Your task to perform on an android device: open app "Pluto TV - Live TV and Movies" (install if not already installed) Image 0: 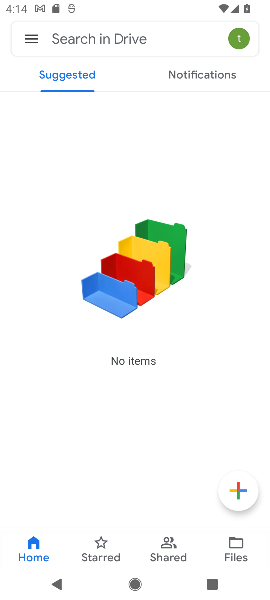
Step 0: press home button
Your task to perform on an android device: open app "Pluto TV - Live TV and Movies" (install if not already installed) Image 1: 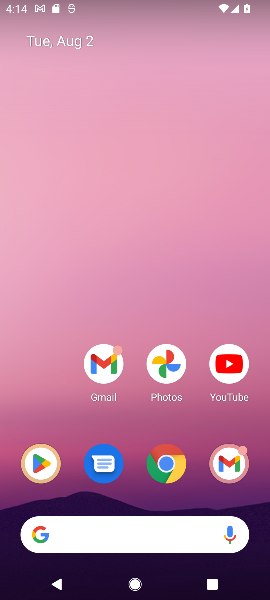
Step 1: click (35, 461)
Your task to perform on an android device: open app "Pluto TV - Live TV and Movies" (install if not already installed) Image 2: 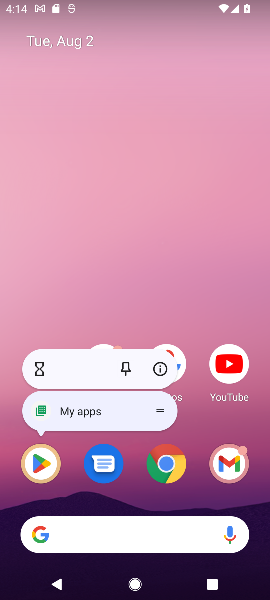
Step 2: click (35, 461)
Your task to perform on an android device: open app "Pluto TV - Live TV and Movies" (install if not already installed) Image 3: 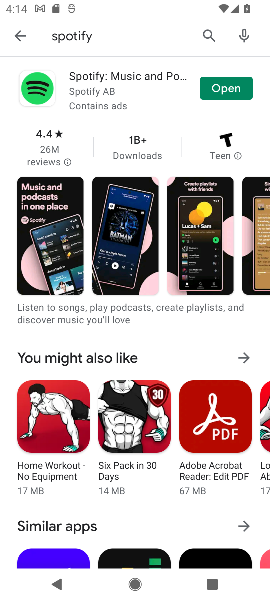
Step 3: click (207, 32)
Your task to perform on an android device: open app "Pluto TV - Live TV and Movies" (install if not already installed) Image 4: 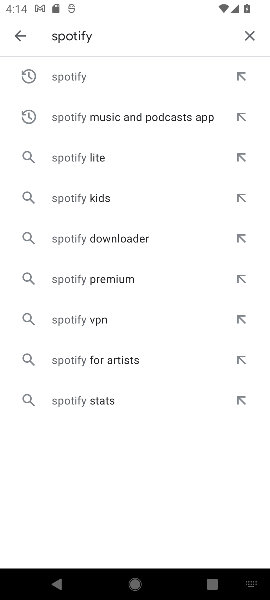
Step 4: click (247, 31)
Your task to perform on an android device: open app "Pluto TV - Live TV and Movies" (install if not already installed) Image 5: 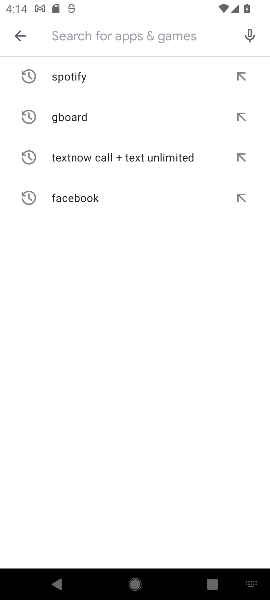
Step 5: type "Pluto TV - Live TV and Movies"
Your task to perform on an android device: open app "Pluto TV - Live TV and Movies" (install if not already installed) Image 6: 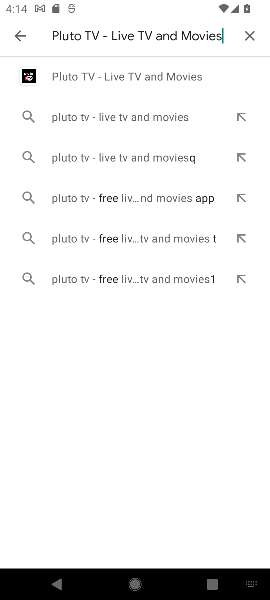
Step 6: click (126, 79)
Your task to perform on an android device: open app "Pluto TV - Live TV and Movies" (install if not already installed) Image 7: 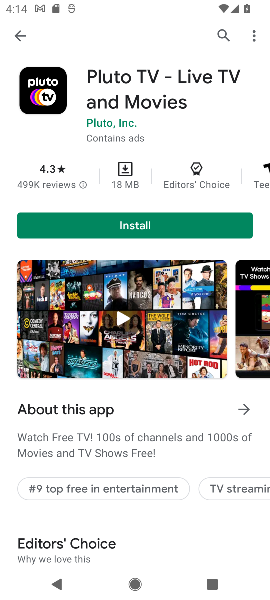
Step 7: click (158, 222)
Your task to perform on an android device: open app "Pluto TV - Live TV and Movies" (install if not already installed) Image 8: 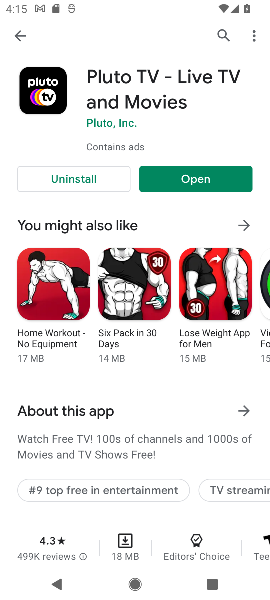
Step 8: click (182, 179)
Your task to perform on an android device: open app "Pluto TV - Live TV and Movies" (install if not already installed) Image 9: 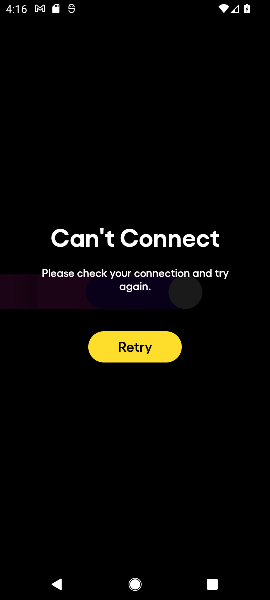
Step 9: task complete